Your task to perform on an android device: turn pop-ups off in chrome Image 0: 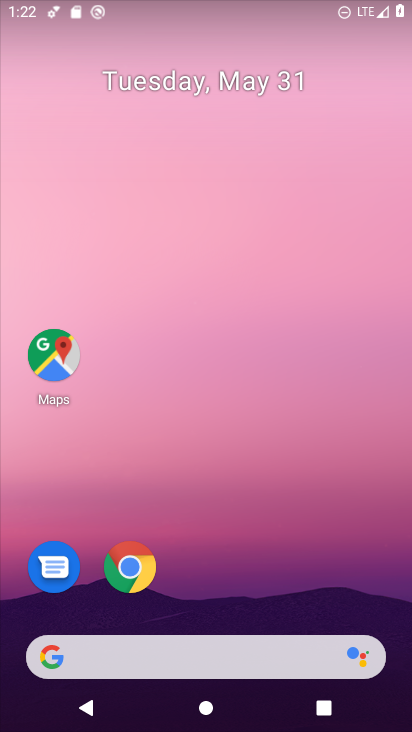
Step 0: click (222, 244)
Your task to perform on an android device: turn pop-ups off in chrome Image 1: 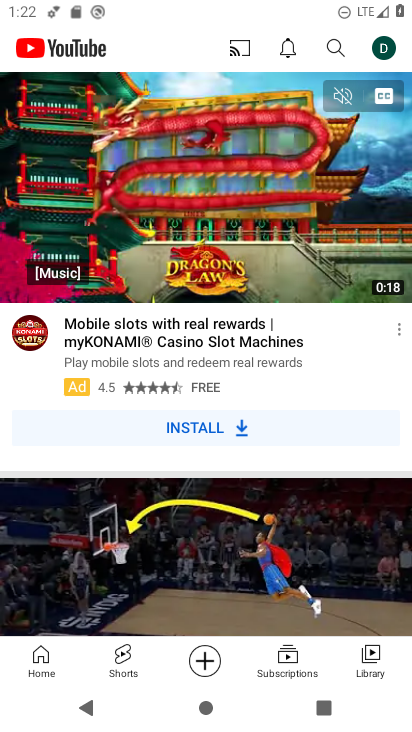
Step 1: press home button
Your task to perform on an android device: turn pop-ups off in chrome Image 2: 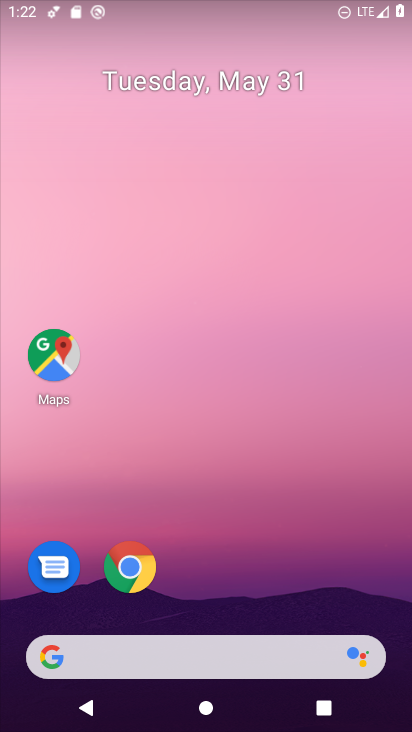
Step 2: click (143, 576)
Your task to perform on an android device: turn pop-ups off in chrome Image 3: 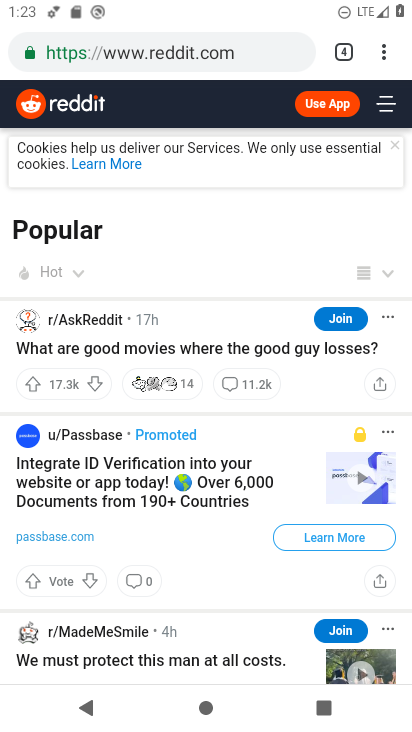
Step 3: click (380, 51)
Your task to perform on an android device: turn pop-ups off in chrome Image 4: 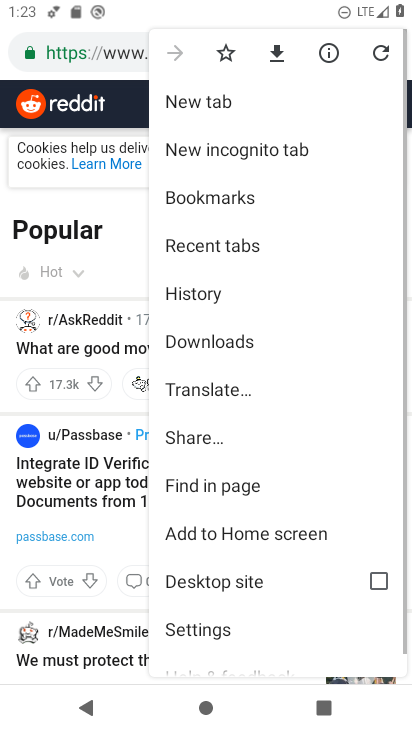
Step 4: drag from (212, 552) to (230, 352)
Your task to perform on an android device: turn pop-ups off in chrome Image 5: 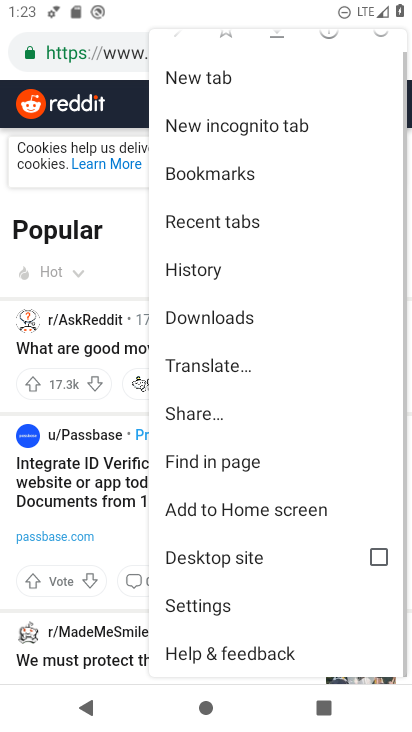
Step 5: click (190, 601)
Your task to perform on an android device: turn pop-ups off in chrome Image 6: 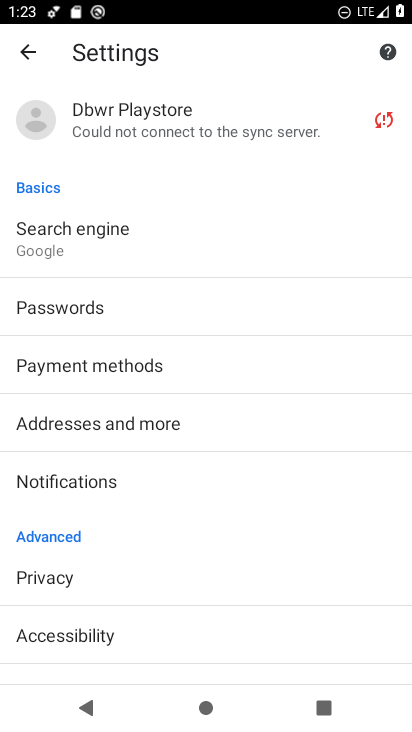
Step 6: drag from (51, 558) to (78, 374)
Your task to perform on an android device: turn pop-ups off in chrome Image 7: 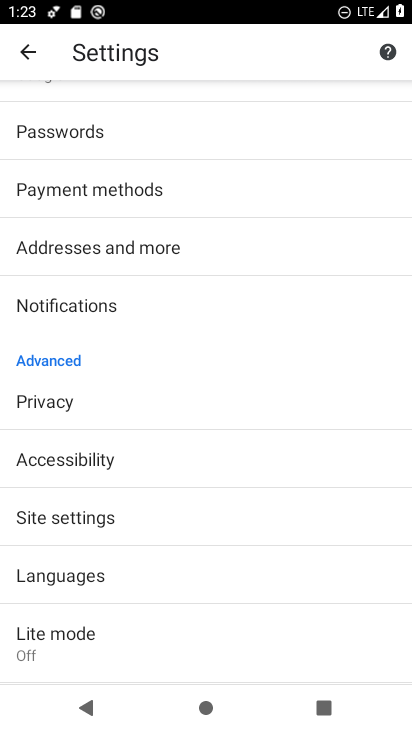
Step 7: drag from (104, 621) to (134, 399)
Your task to perform on an android device: turn pop-ups off in chrome Image 8: 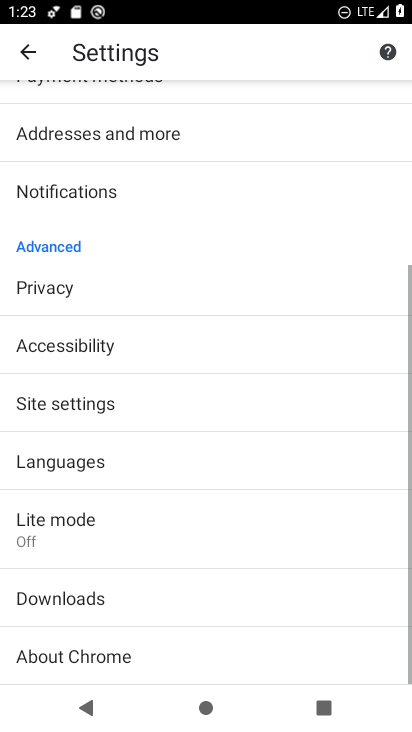
Step 8: click (134, 399)
Your task to perform on an android device: turn pop-ups off in chrome Image 9: 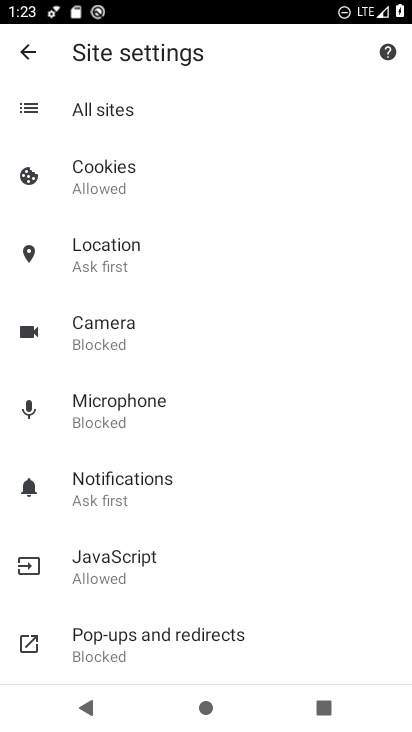
Step 9: drag from (150, 638) to (166, 489)
Your task to perform on an android device: turn pop-ups off in chrome Image 10: 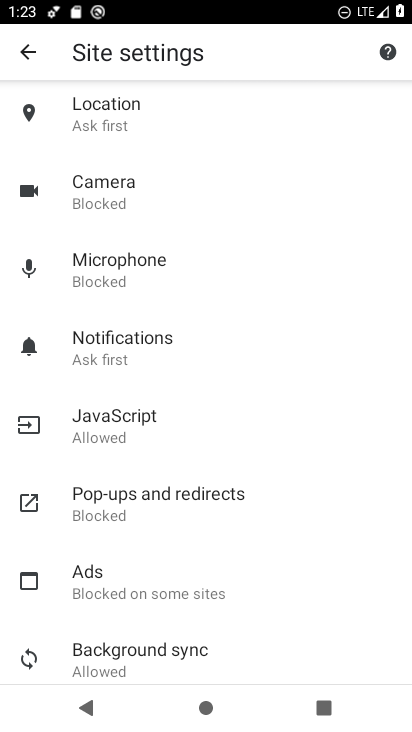
Step 10: click (168, 500)
Your task to perform on an android device: turn pop-ups off in chrome Image 11: 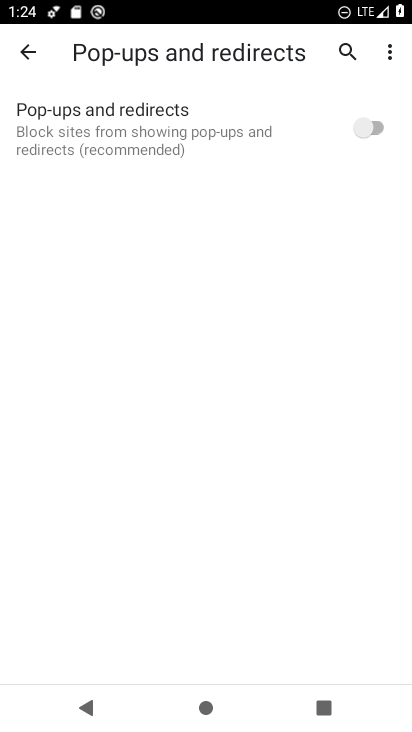
Step 11: task complete